Your task to perform on an android device: What's on the menu at Subway? Image 0: 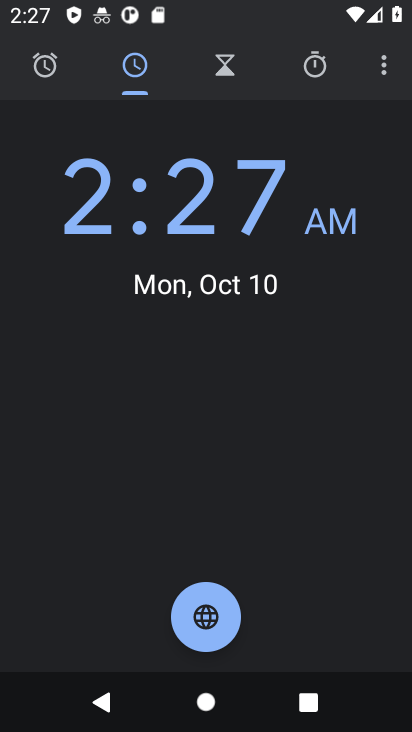
Step 0: press home button
Your task to perform on an android device: What's on the menu at Subway? Image 1: 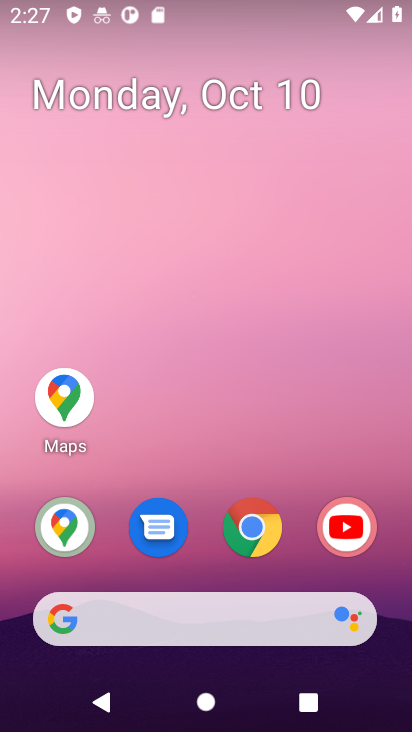
Step 1: click (251, 528)
Your task to perform on an android device: What's on the menu at Subway? Image 2: 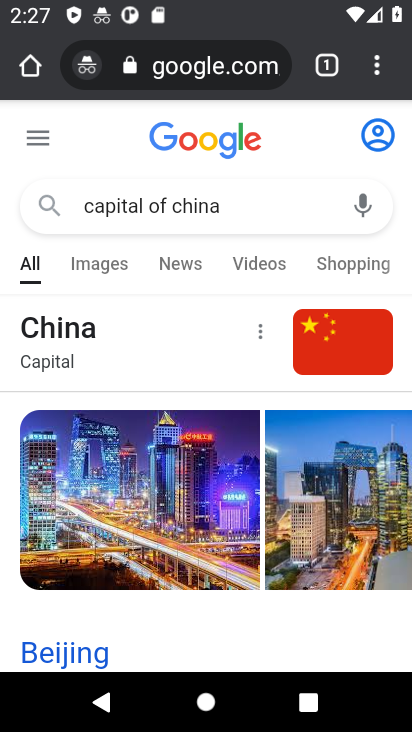
Step 2: click (219, 74)
Your task to perform on an android device: What's on the menu at Subway? Image 3: 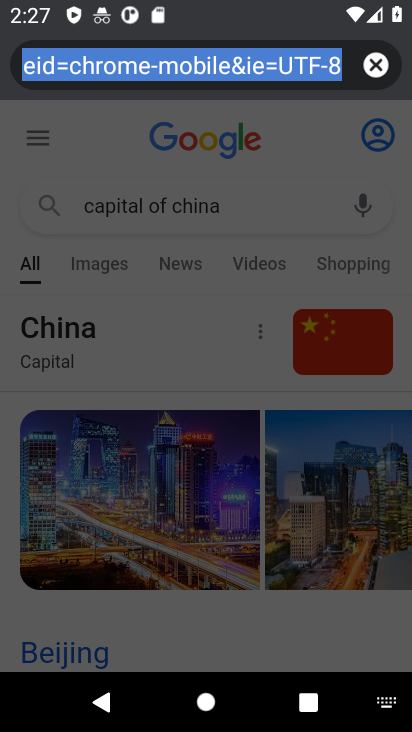
Step 3: click (377, 69)
Your task to perform on an android device: What's on the menu at Subway? Image 4: 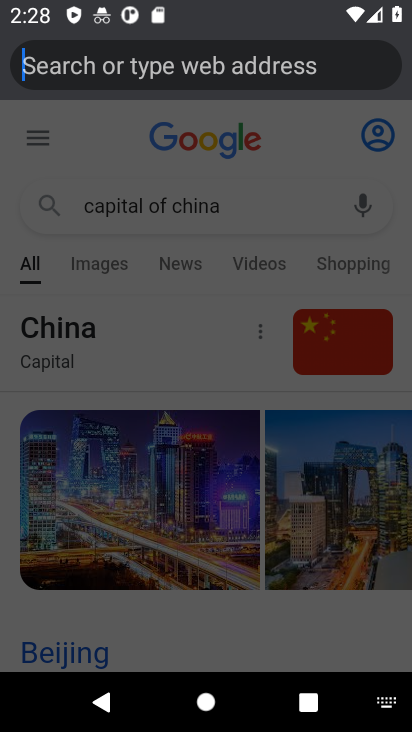
Step 4: type "menu at subway"
Your task to perform on an android device: What's on the menu at Subway? Image 5: 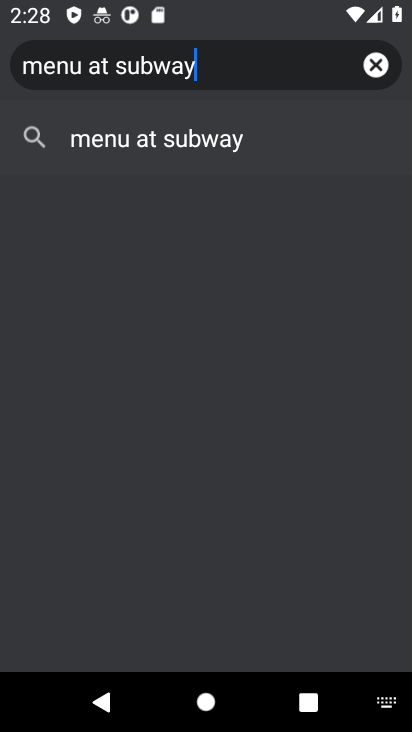
Step 5: click (209, 140)
Your task to perform on an android device: What's on the menu at Subway? Image 6: 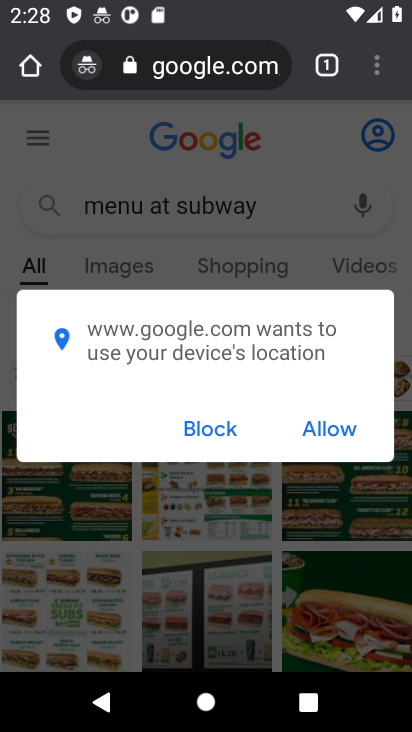
Step 6: click (324, 428)
Your task to perform on an android device: What's on the menu at Subway? Image 7: 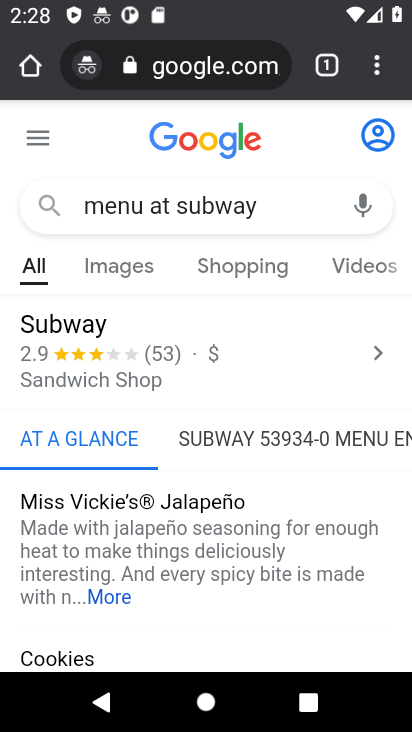
Step 7: task complete